Your task to perform on an android device: make emails show in primary in the gmail app Image 0: 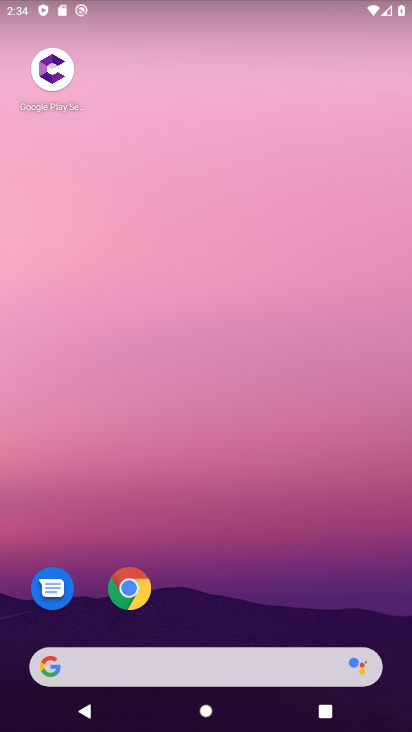
Step 0: drag from (310, 584) to (302, 86)
Your task to perform on an android device: make emails show in primary in the gmail app Image 1: 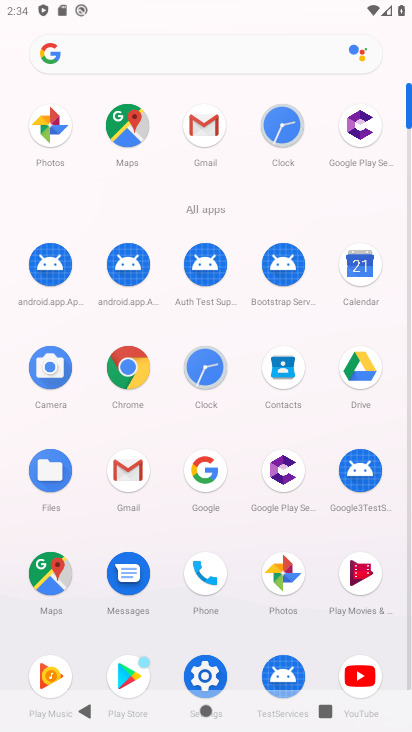
Step 1: click (134, 468)
Your task to perform on an android device: make emails show in primary in the gmail app Image 2: 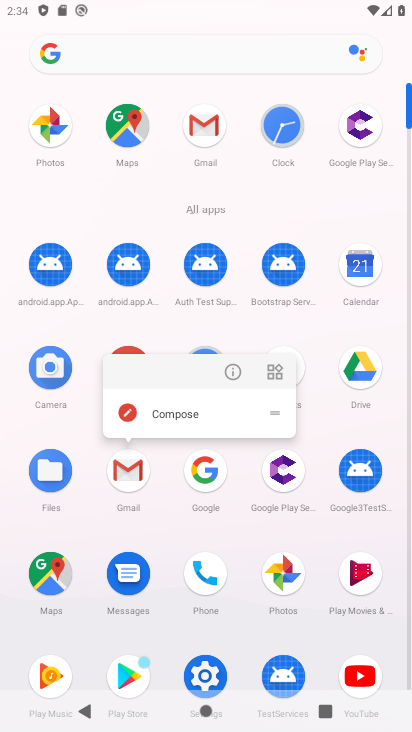
Step 2: click (129, 472)
Your task to perform on an android device: make emails show in primary in the gmail app Image 3: 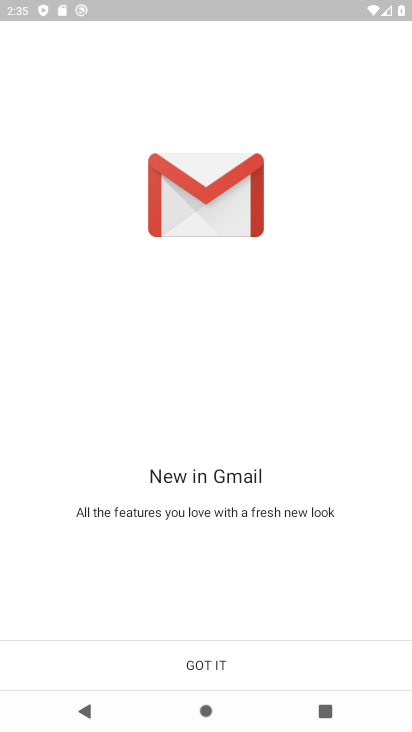
Step 3: click (190, 661)
Your task to perform on an android device: make emails show in primary in the gmail app Image 4: 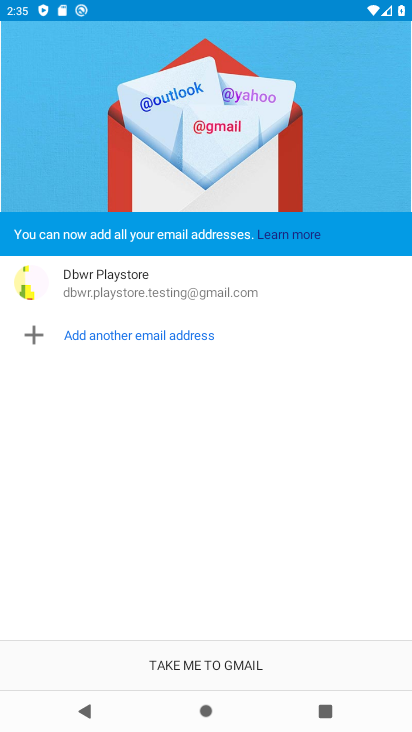
Step 4: click (237, 657)
Your task to perform on an android device: make emails show in primary in the gmail app Image 5: 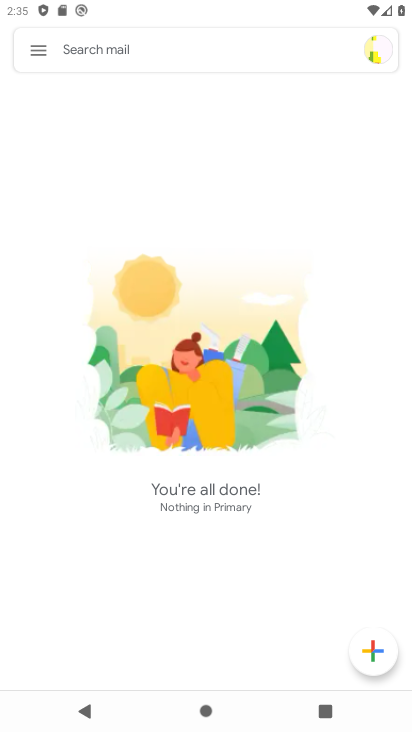
Step 5: click (38, 57)
Your task to perform on an android device: make emails show in primary in the gmail app Image 6: 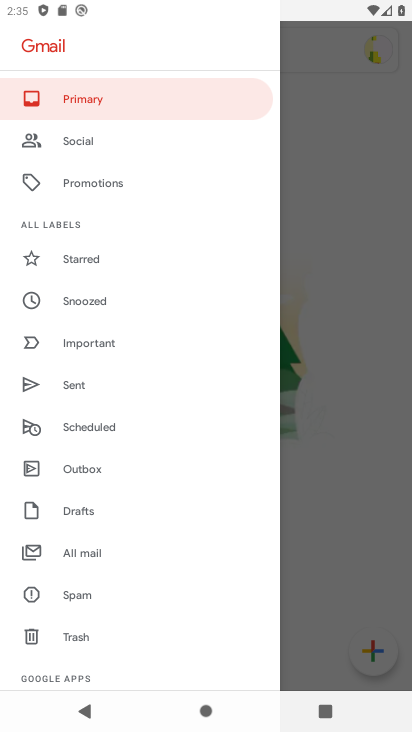
Step 6: click (110, 104)
Your task to perform on an android device: make emails show in primary in the gmail app Image 7: 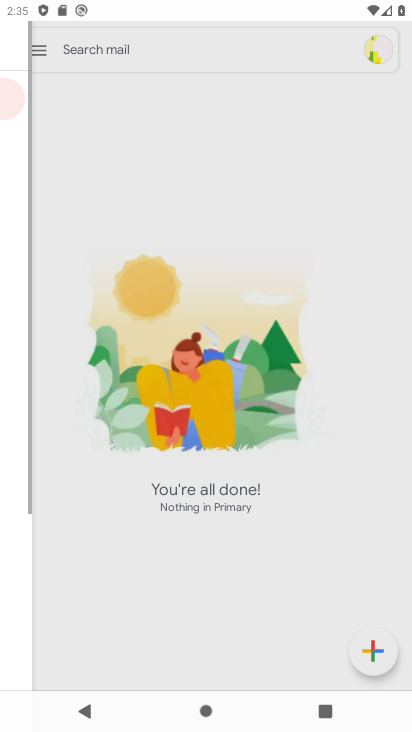
Step 7: click (319, 213)
Your task to perform on an android device: make emails show in primary in the gmail app Image 8: 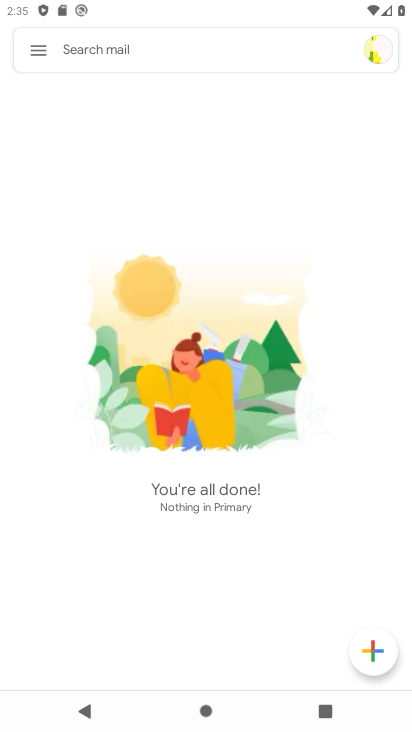
Step 8: task complete